Your task to perform on an android device: Turn on the flashlight Image 0: 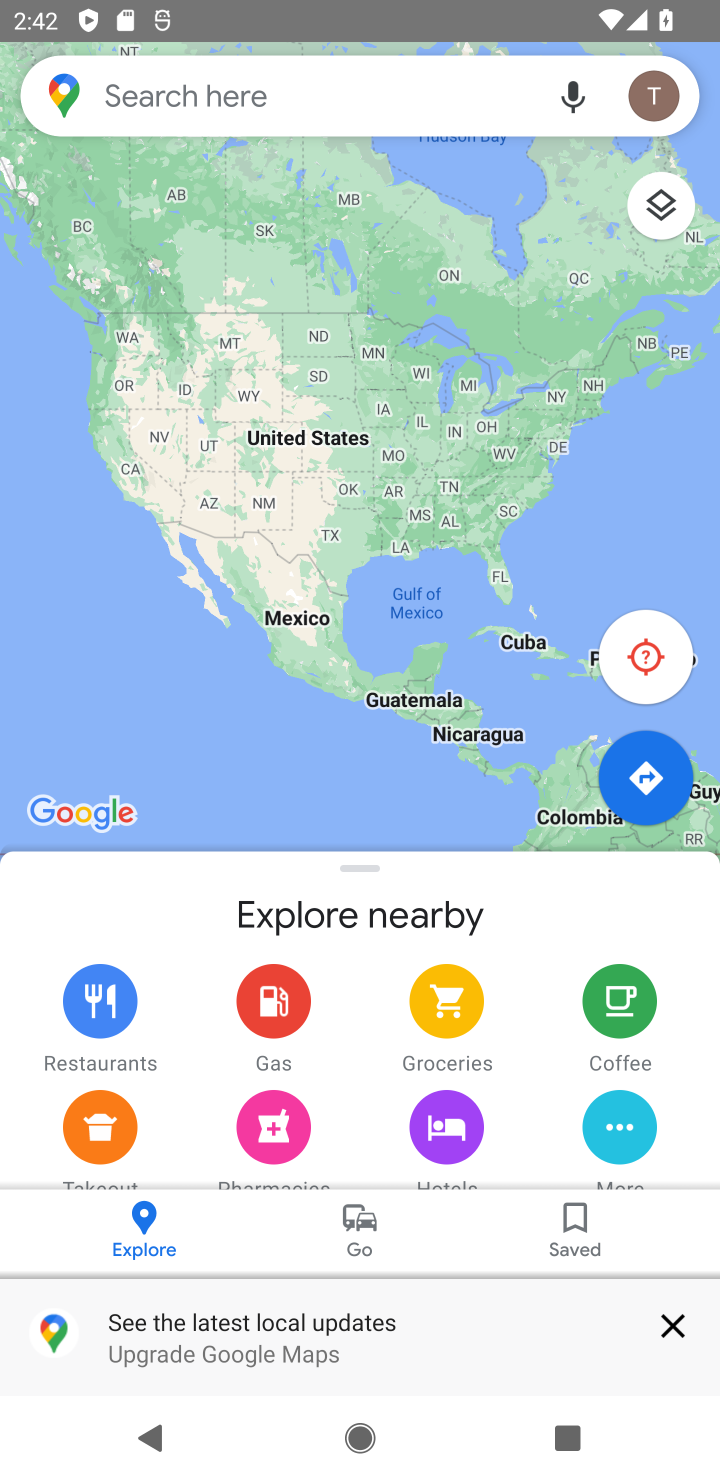
Step 0: press home button
Your task to perform on an android device: Turn on the flashlight Image 1: 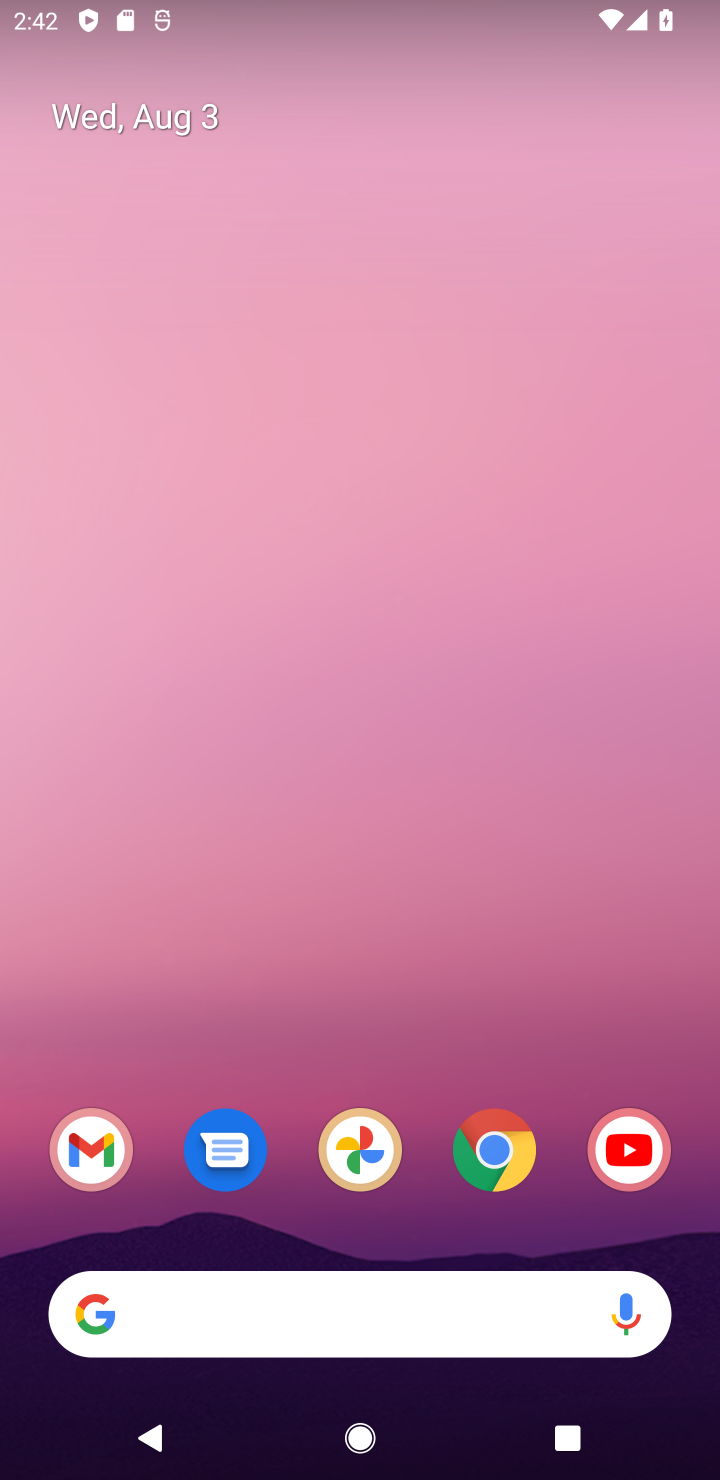
Step 1: drag from (250, 54) to (259, 938)
Your task to perform on an android device: Turn on the flashlight Image 2: 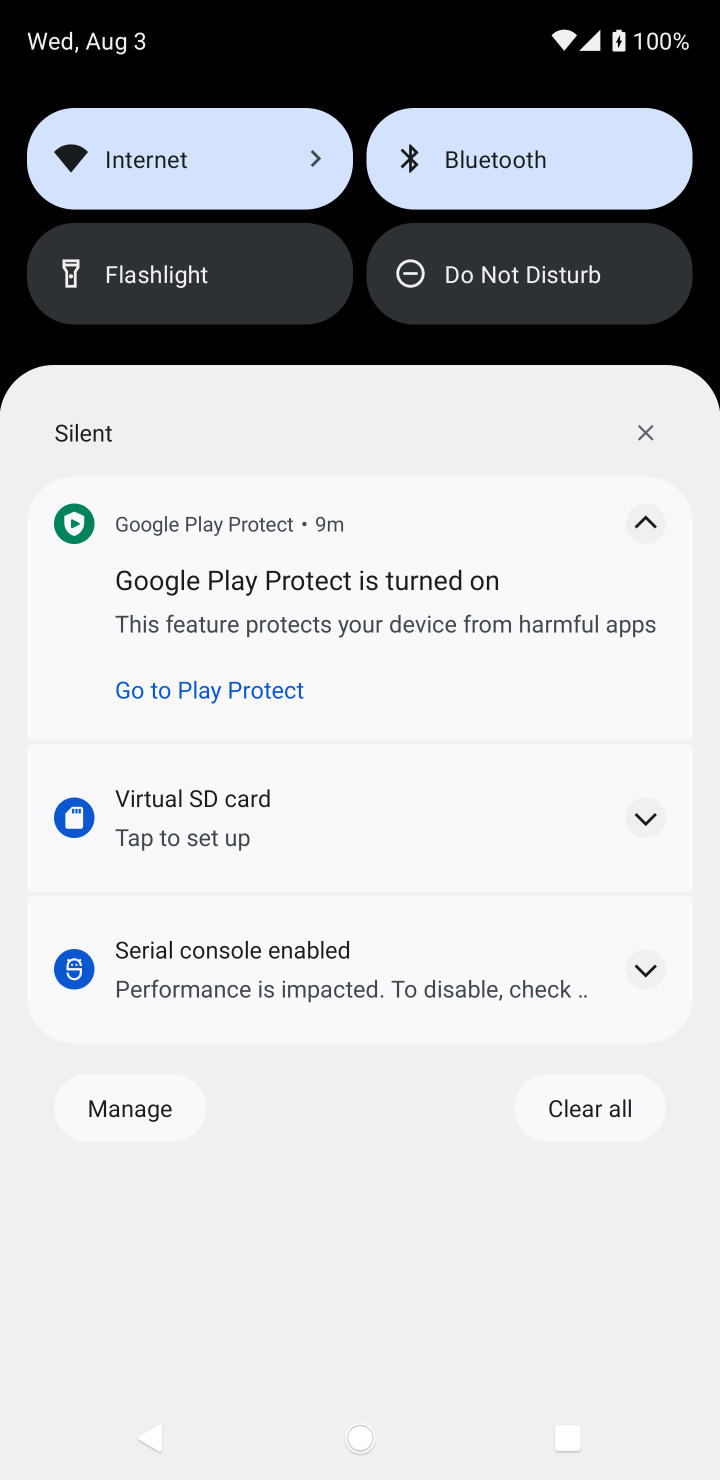
Step 2: click (223, 300)
Your task to perform on an android device: Turn on the flashlight Image 3: 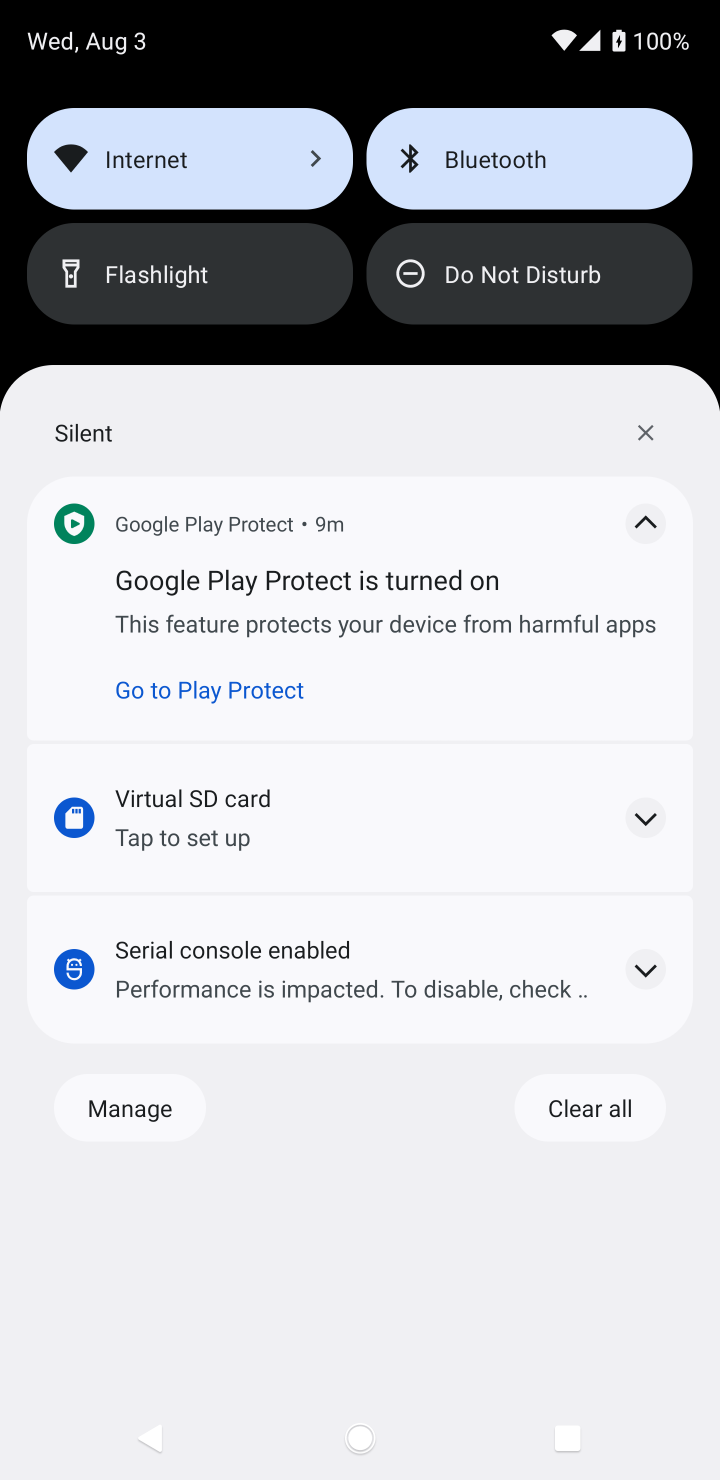
Step 3: click (117, 288)
Your task to perform on an android device: Turn on the flashlight Image 4: 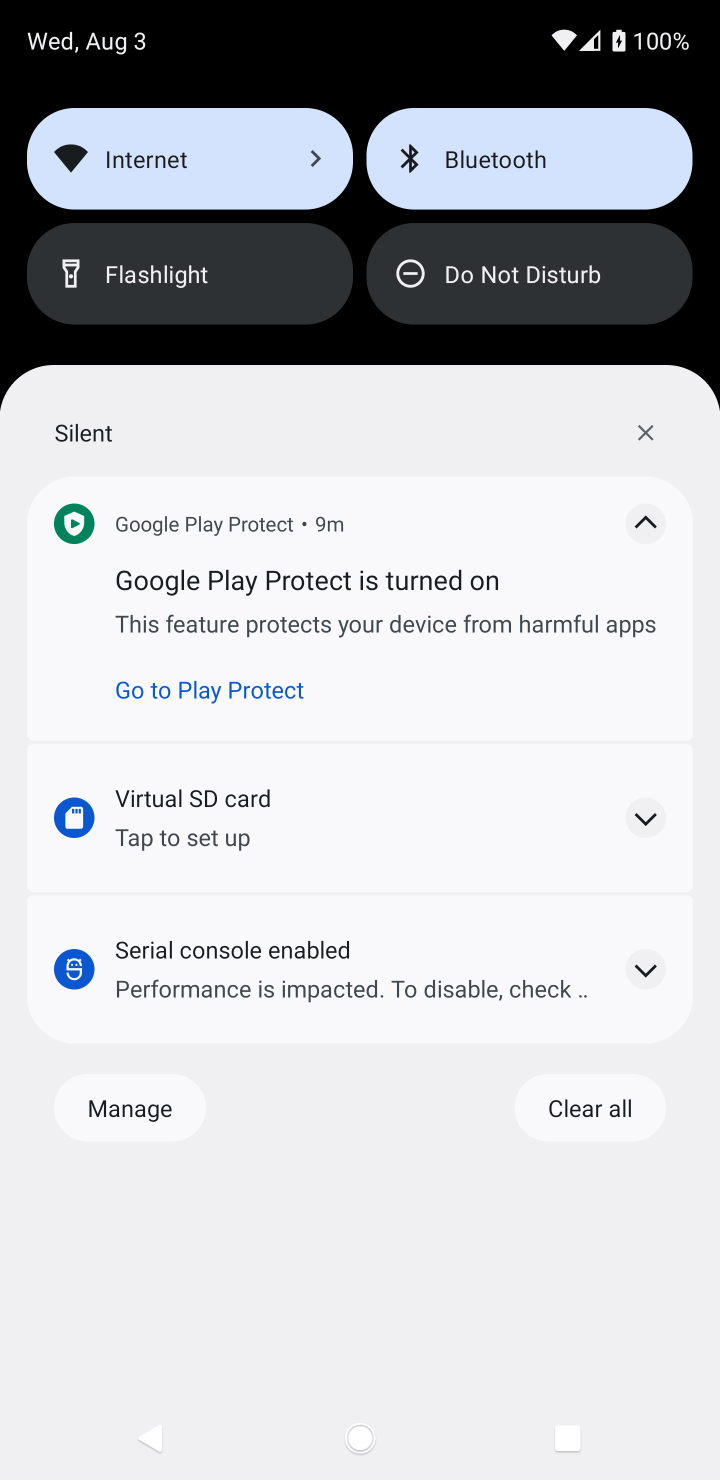
Step 4: task complete